Your task to perform on an android device: turn on data saver in the chrome app Image 0: 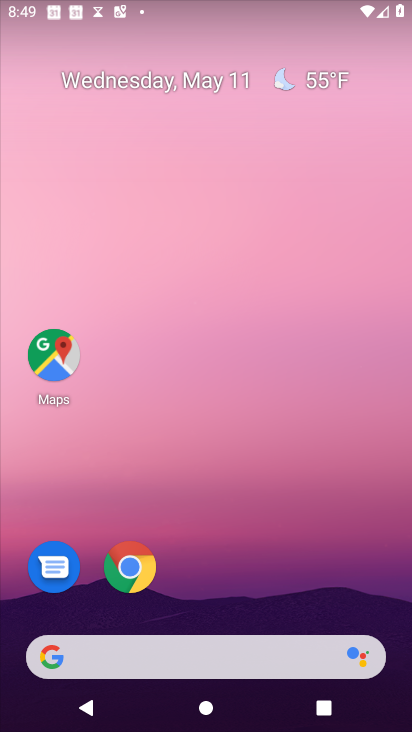
Step 0: click (140, 562)
Your task to perform on an android device: turn on data saver in the chrome app Image 1: 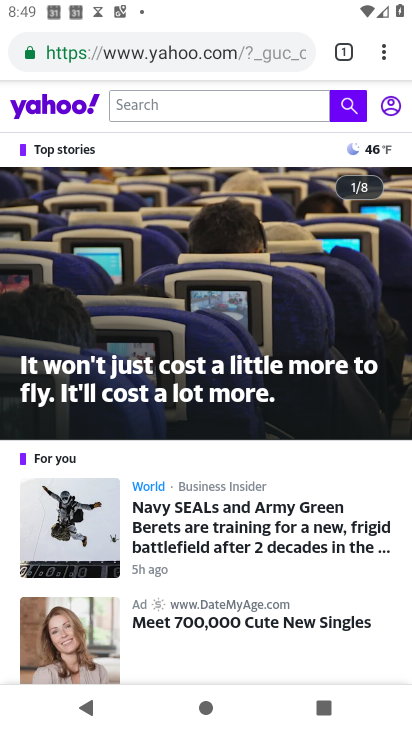
Step 1: click (389, 50)
Your task to perform on an android device: turn on data saver in the chrome app Image 2: 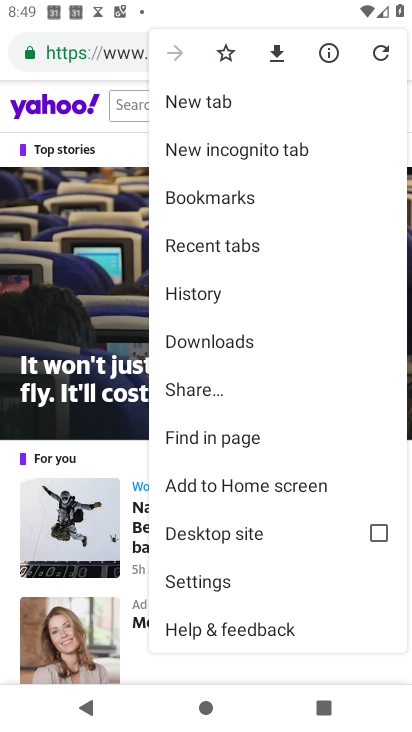
Step 2: click (216, 588)
Your task to perform on an android device: turn on data saver in the chrome app Image 3: 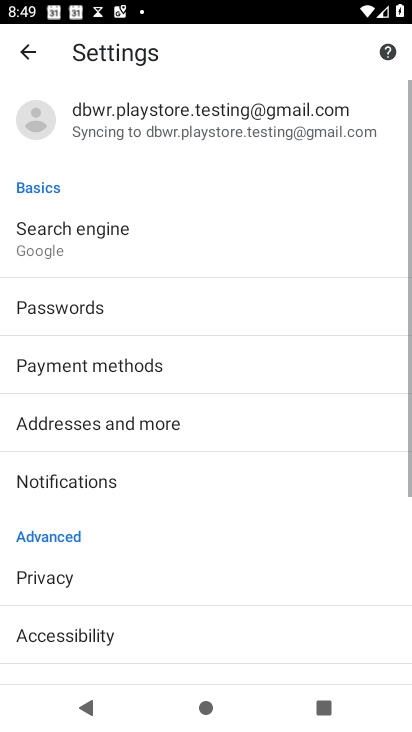
Step 3: drag from (128, 591) to (210, 177)
Your task to perform on an android device: turn on data saver in the chrome app Image 4: 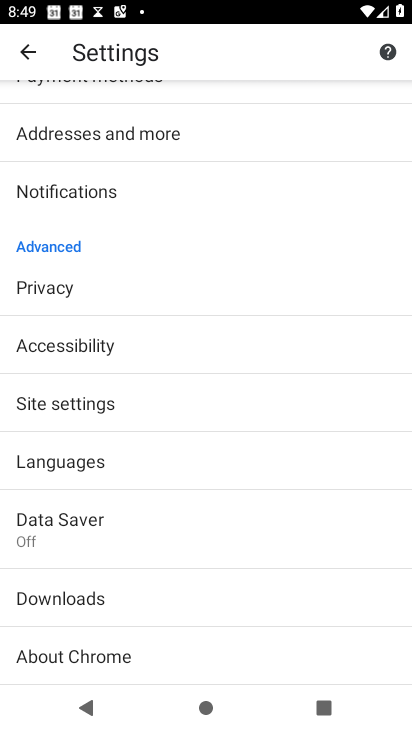
Step 4: click (70, 520)
Your task to perform on an android device: turn on data saver in the chrome app Image 5: 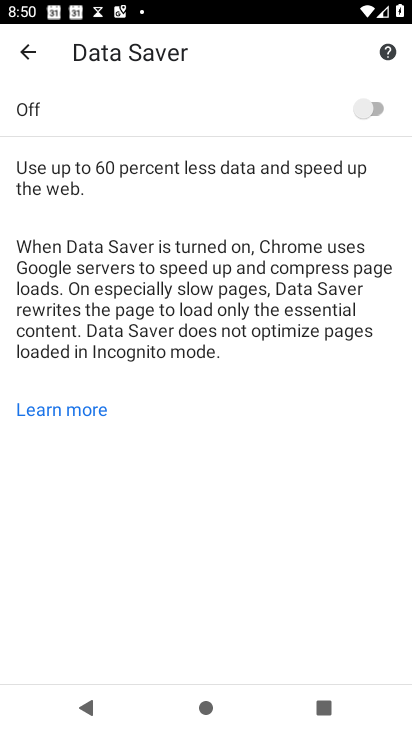
Step 5: click (384, 99)
Your task to perform on an android device: turn on data saver in the chrome app Image 6: 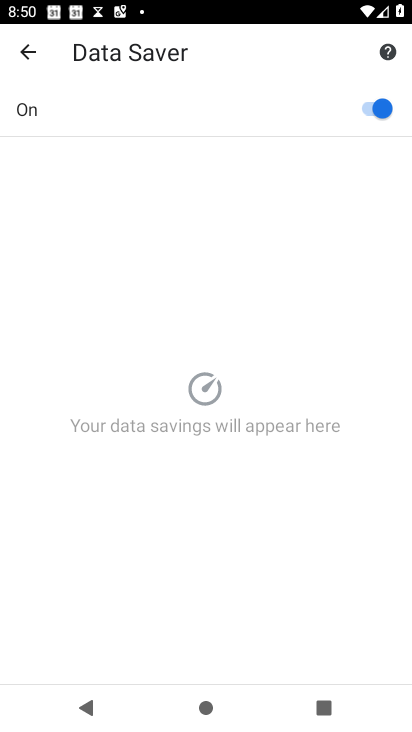
Step 6: task complete